Your task to perform on an android device: open the mobile data screen to see how much data has been used Image 0: 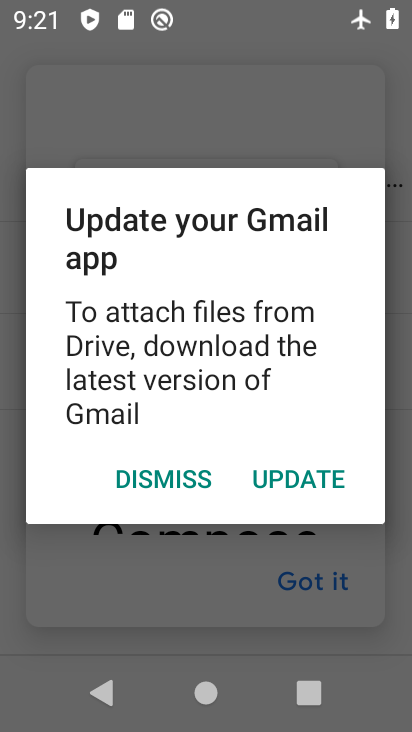
Step 0: press back button
Your task to perform on an android device: open the mobile data screen to see how much data has been used Image 1: 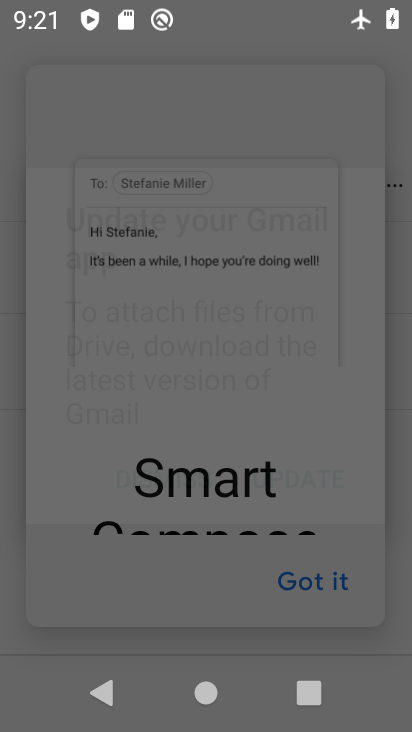
Step 1: press back button
Your task to perform on an android device: open the mobile data screen to see how much data has been used Image 2: 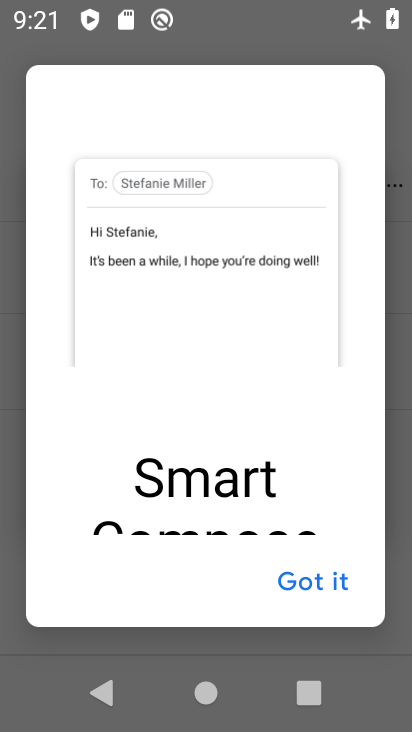
Step 2: press back button
Your task to perform on an android device: open the mobile data screen to see how much data has been used Image 3: 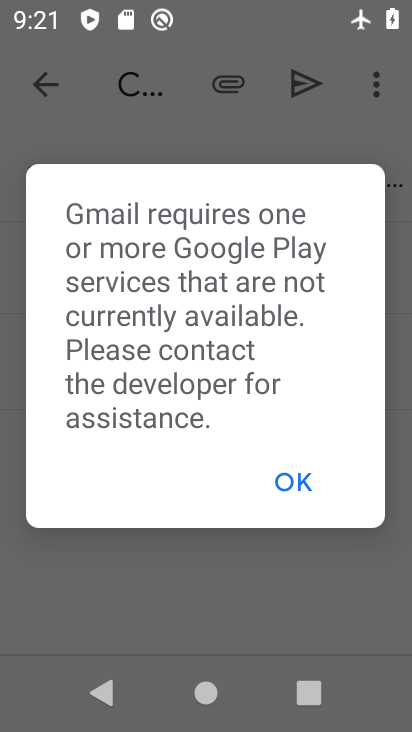
Step 3: click (293, 498)
Your task to perform on an android device: open the mobile data screen to see how much data has been used Image 4: 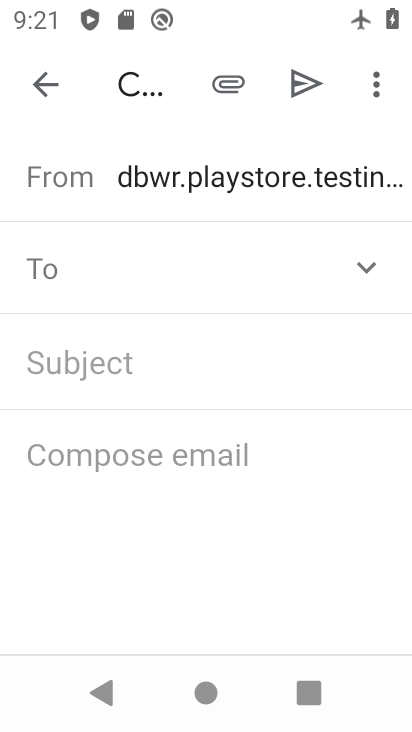
Step 4: press back button
Your task to perform on an android device: open the mobile data screen to see how much data has been used Image 5: 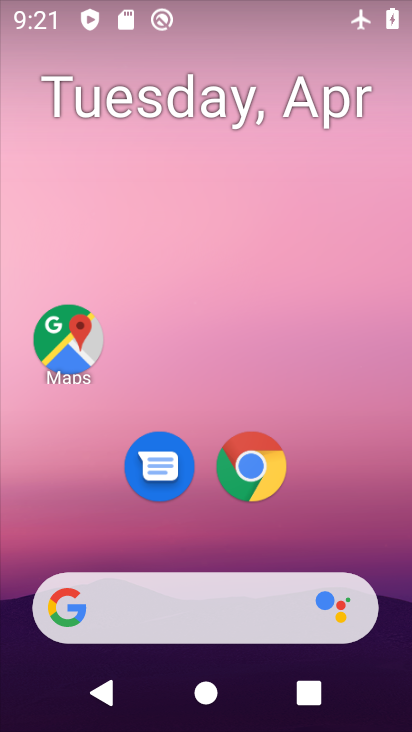
Step 5: drag from (290, 524) to (290, 117)
Your task to perform on an android device: open the mobile data screen to see how much data has been used Image 6: 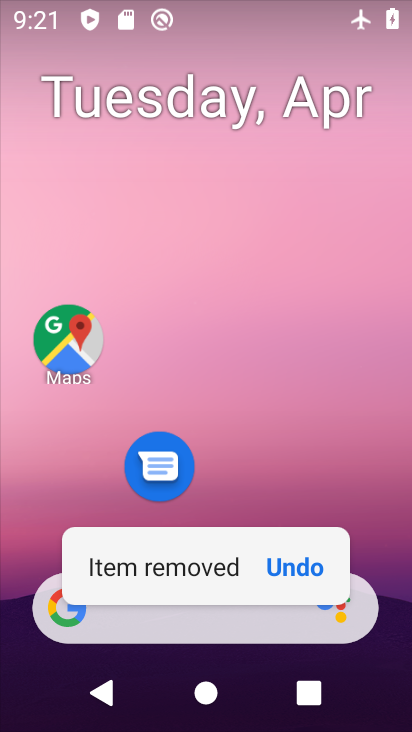
Step 6: drag from (332, 475) to (319, 121)
Your task to perform on an android device: open the mobile data screen to see how much data has been used Image 7: 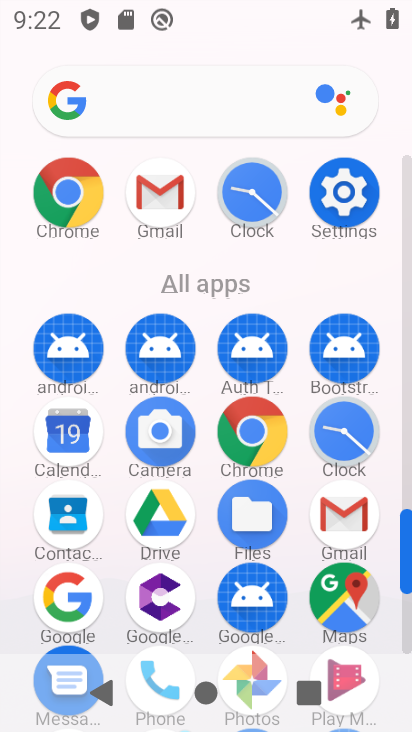
Step 7: click (338, 193)
Your task to perform on an android device: open the mobile data screen to see how much data has been used Image 8: 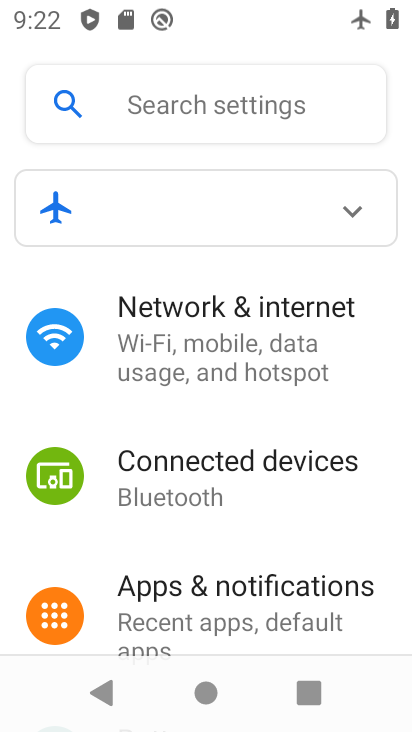
Step 8: click (299, 352)
Your task to perform on an android device: open the mobile data screen to see how much data has been used Image 9: 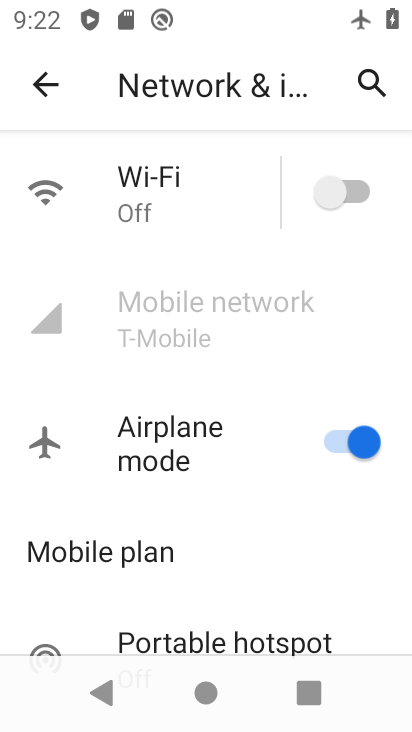
Step 9: click (352, 452)
Your task to perform on an android device: open the mobile data screen to see how much data has been used Image 10: 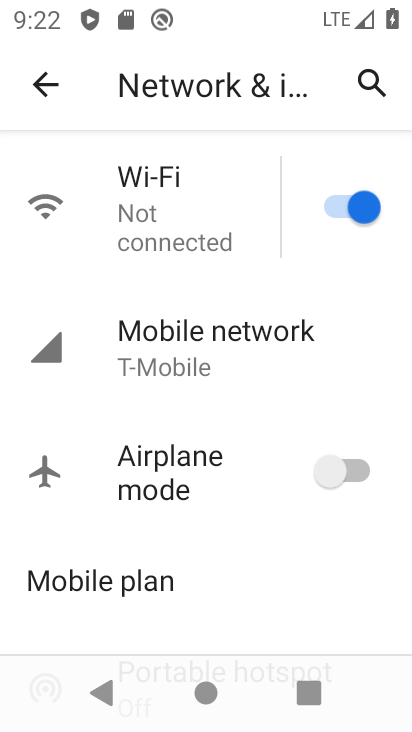
Step 10: click (243, 347)
Your task to perform on an android device: open the mobile data screen to see how much data has been used Image 11: 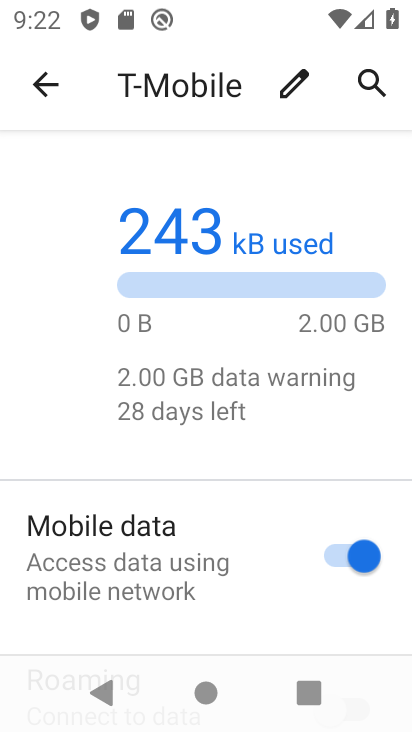
Step 11: task complete